Your task to perform on an android device: show emergency info Image 0: 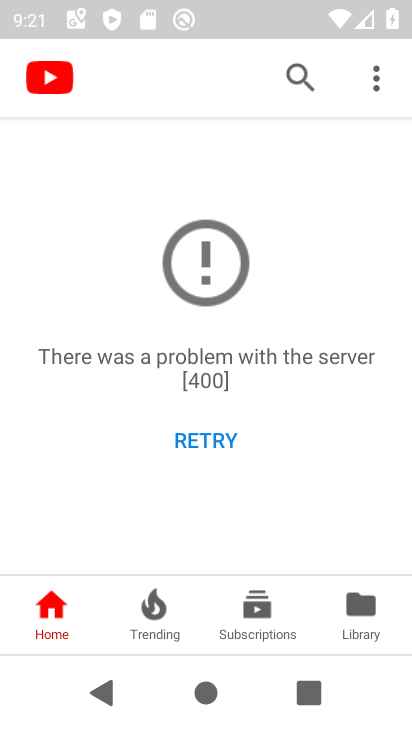
Step 0: press home button
Your task to perform on an android device: show emergency info Image 1: 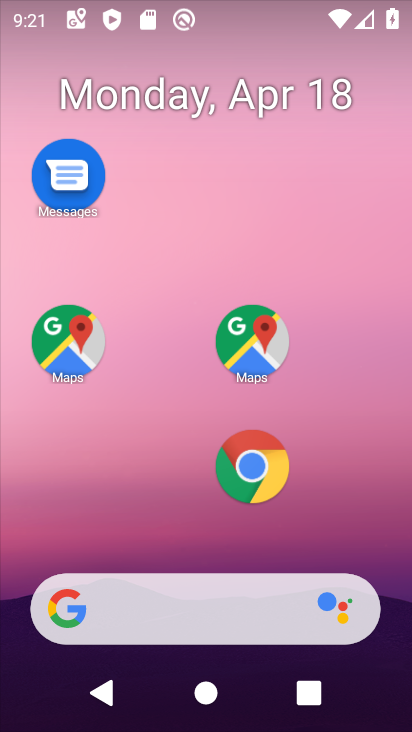
Step 1: drag from (183, 524) to (299, 41)
Your task to perform on an android device: show emergency info Image 2: 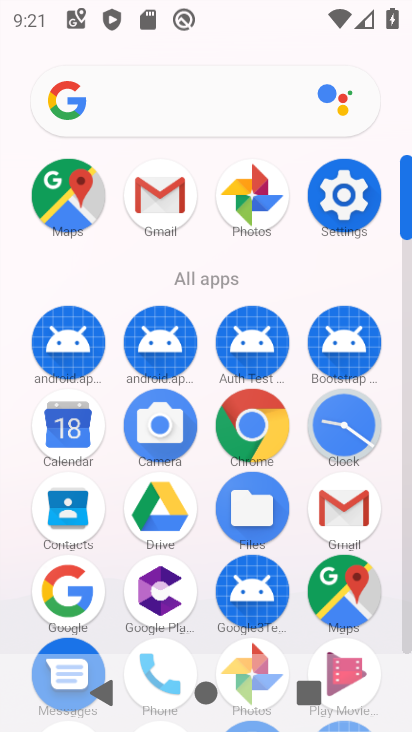
Step 2: click (354, 202)
Your task to perform on an android device: show emergency info Image 3: 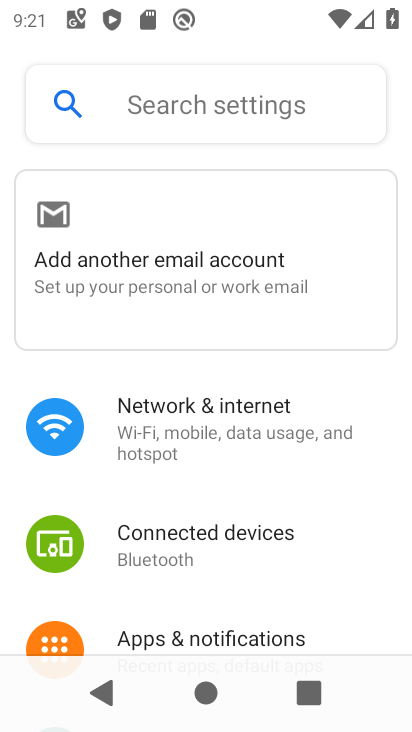
Step 3: drag from (214, 597) to (297, 4)
Your task to perform on an android device: show emergency info Image 4: 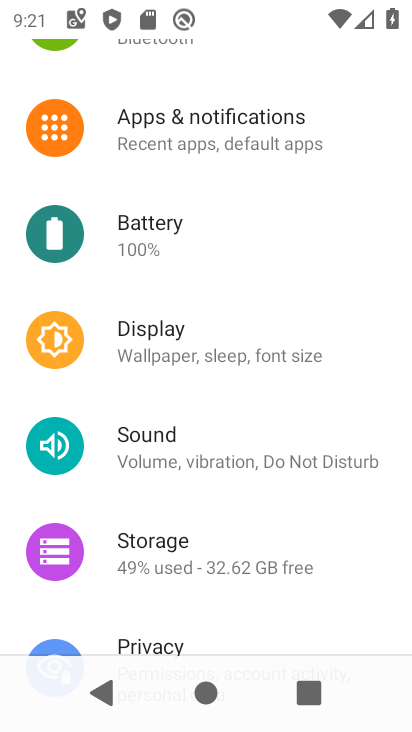
Step 4: drag from (200, 418) to (329, 13)
Your task to perform on an android device: show emergency info Image 5: 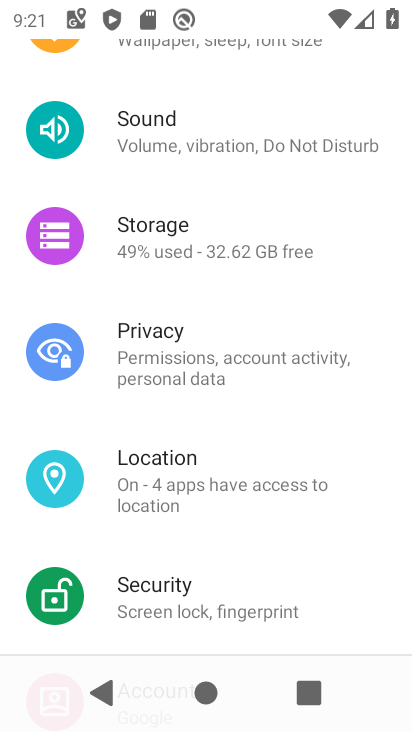
Step 5: drag from (227, 509) to (360, 0)
Your task to perform on an android device: show emergency info Image 6: 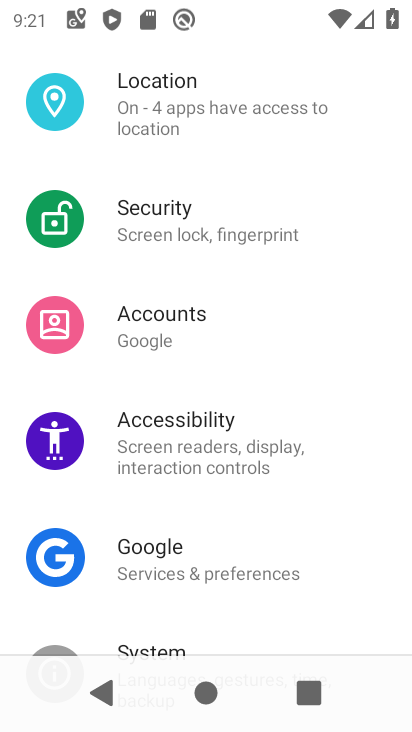
Step 6: drag from (200, 550) to (355, 5)
Your task to perform on an android device: show emergency info Image 7: 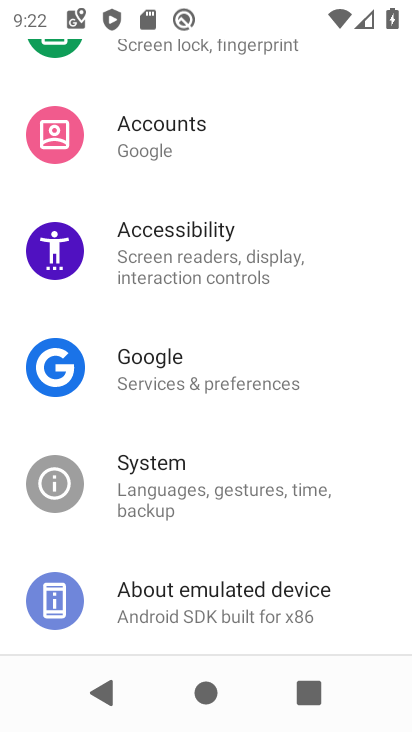
Step 7: click (199, 597)
Your task to perform on an android device: show emergency info Image 8: 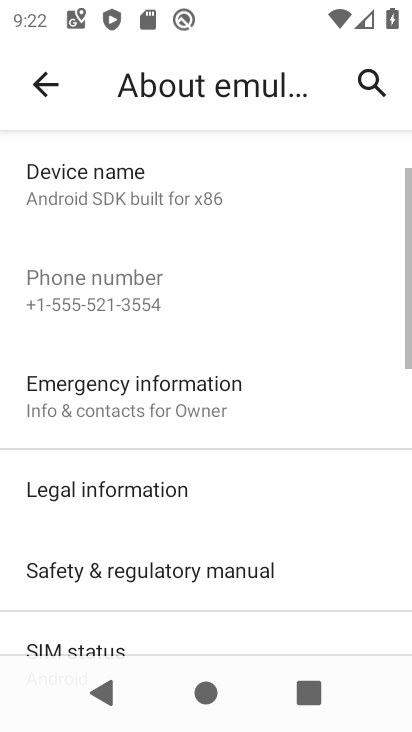
Step 8: click (160, 391)
Your task to perform on an android device: show emergency info Image 9: 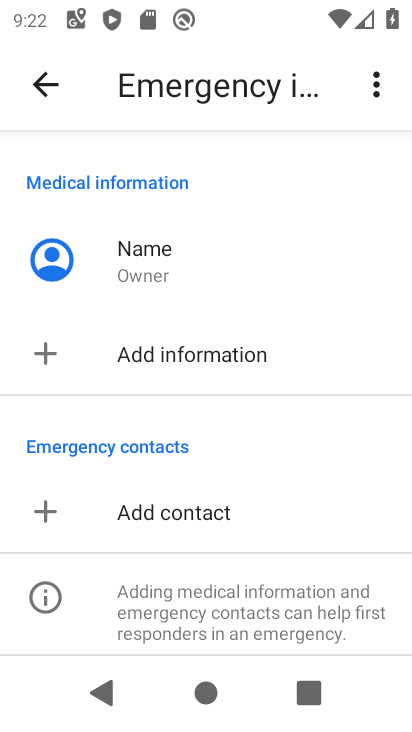
Step 9: task complete